Your task to perform on an android device: Go to wifi settings Image 0: 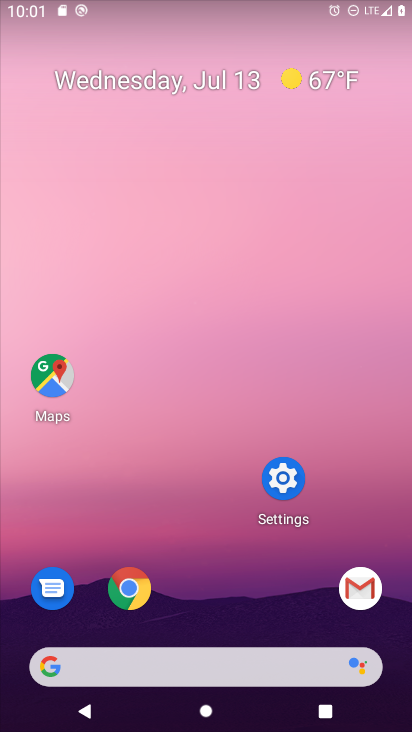
Step 0: click (285, 495)
Your task to perform on an android device: Go to wifi settings Image 1: 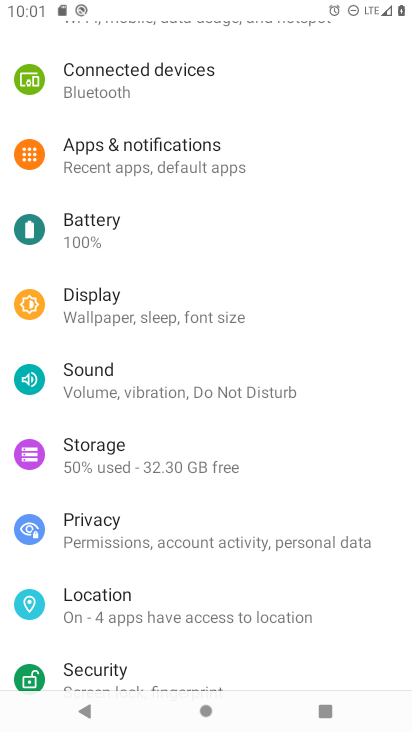
Step 1: drag from (99, 136) to (95, 456)
Your task to perform on an android device: Go to wifi settings Image 2: 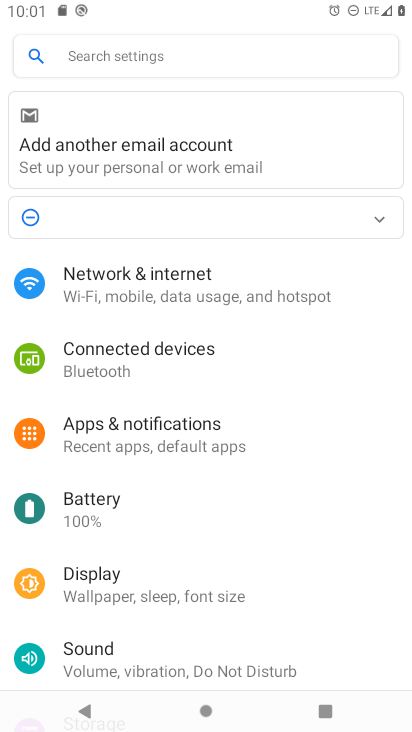
Step 2: click (162, 290)
Your task to perform on an android device: Go to wifi settings Image 3: 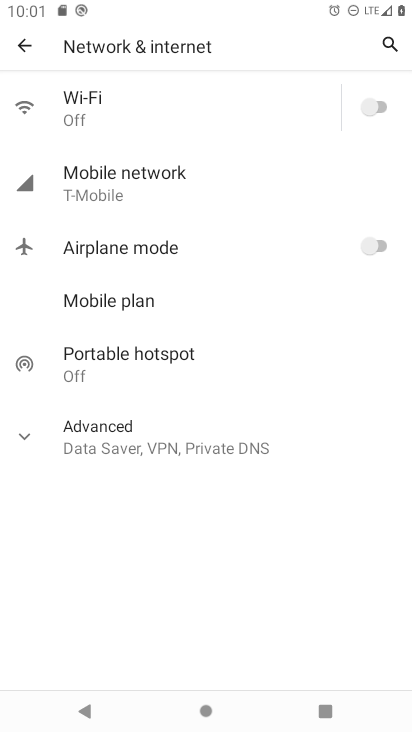
Step 3: click (99, 127)
Your task to perform on an android device: Go to wifi settings Image 4: 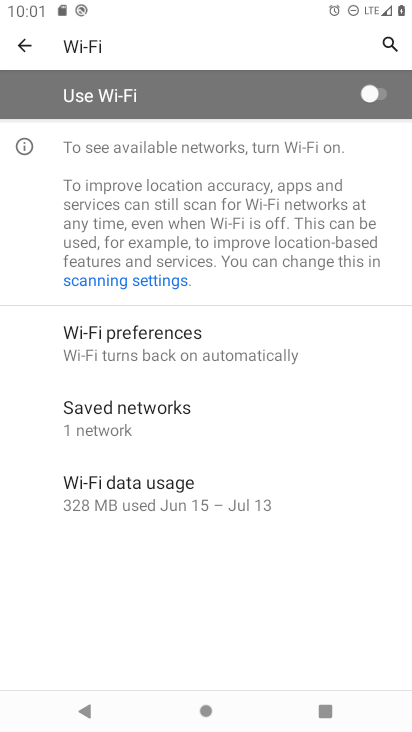
Step 4: click (377, 95)
Your task to perform on an android device: Go to wifi settings Image 5: 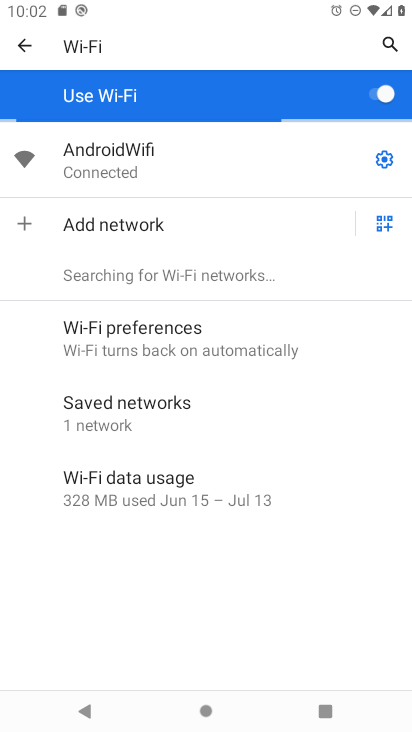
Step 5: task complete